Your task to perform on an android device: Search for Italian restaurants on Maps Image 0: 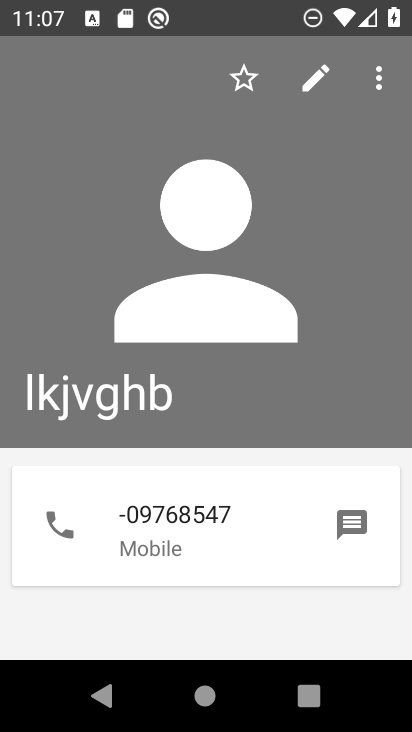
Step 0: press home button
Your task to perform on an android device: Search for Italian restaurants on Maps Image 1: 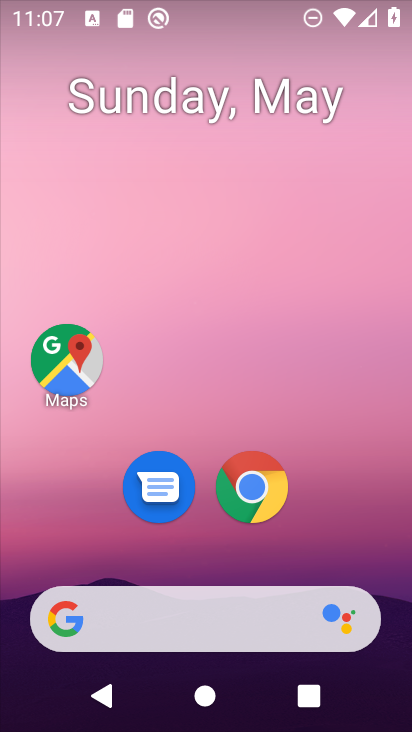
Step 1: drag from (236, 693) to (348, 151)
Your task to perform on an android device: Search for Italian restaurants on Maps Image 2: 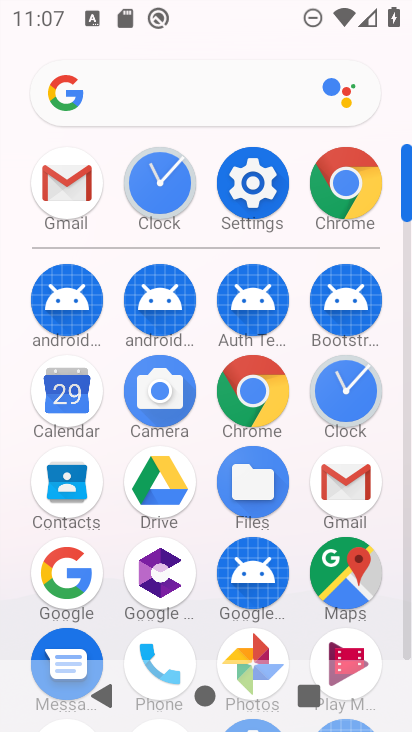
Step 2: drag from (227, 505) to (280, 216)
Your task to perform on an android device: Search for Italian restaurants on Maps Image 3: 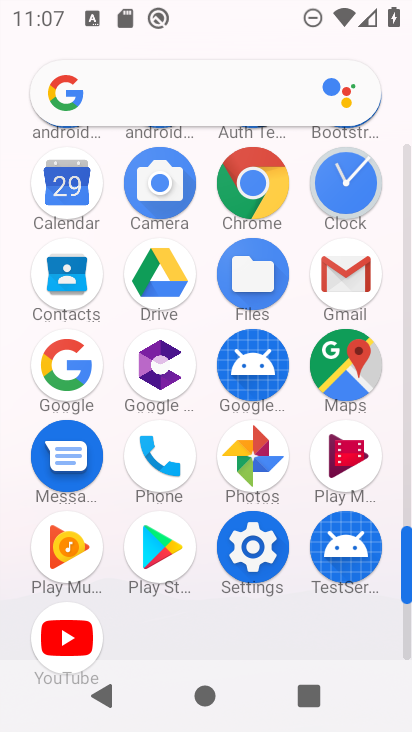
Step 3: click (349, 385)
Your task to perform on an android device: Search for Italian restaurants on Maps Image 4: 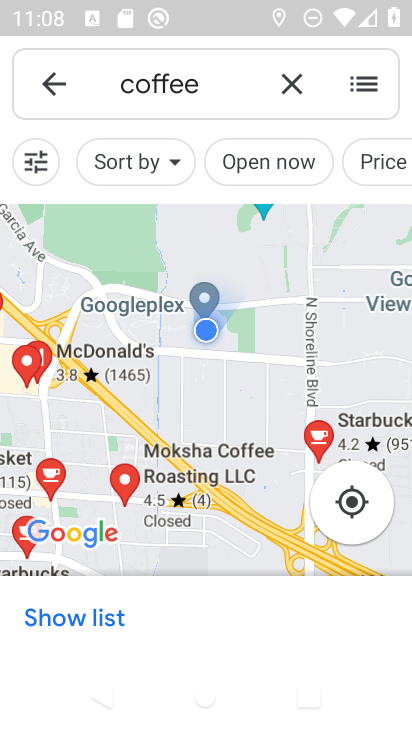
Step 4: click (50, 91)
Your task to perform on an android device: Search for Italian restaurants on Maps Image 5: 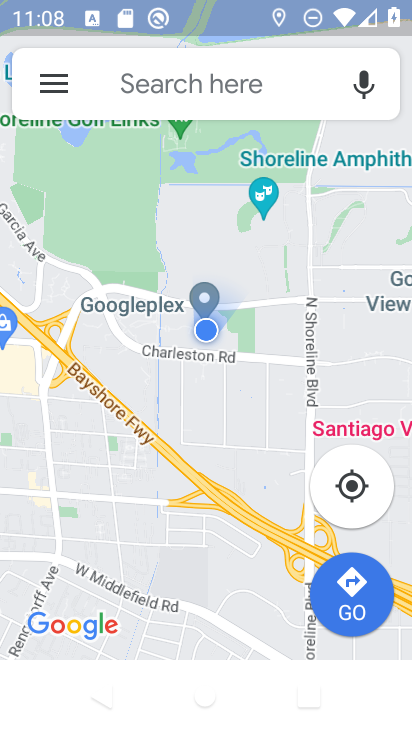
Step 5: click (164, 82)
Your task to perform on an android device: Search for Italian restaurants on Maps Image 6: 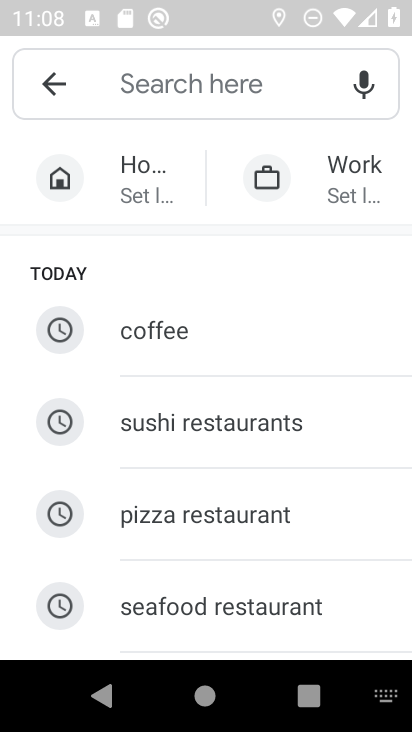
Step 6: drag from (192, 511) to (270, 271)
Your task to perform on an android device: Search for Italian restaurants on Maps Image 7: 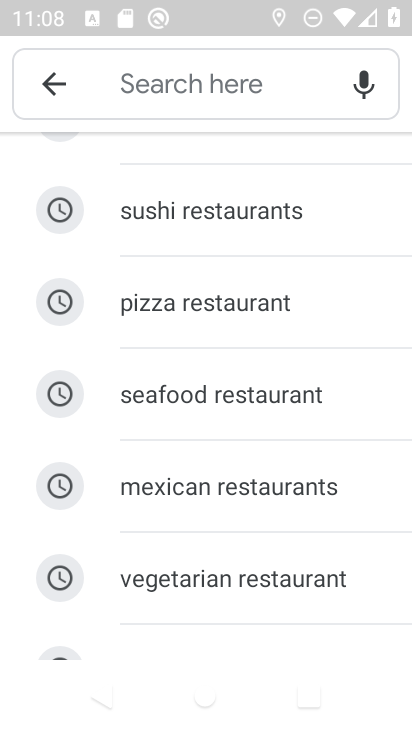
Step 7: drag from (187, 465) to (228, 191)
Your task to perform on an android device: Search for Italian restaurants on Maps Image 8: 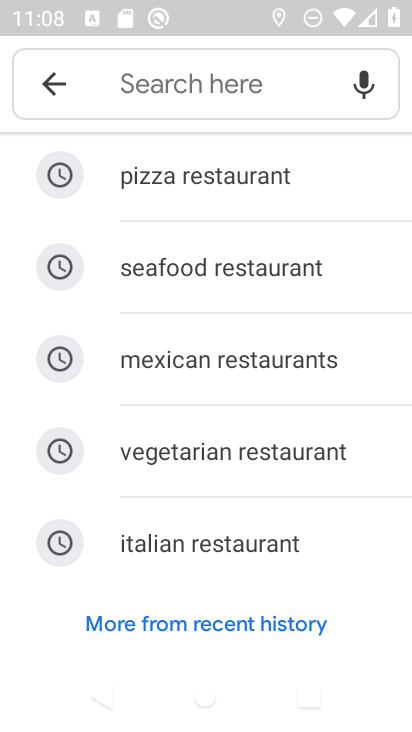
Step 8: click (224, 551)
Your task to perform on an android device: Search for Italian restaurants on Maps Image 9: 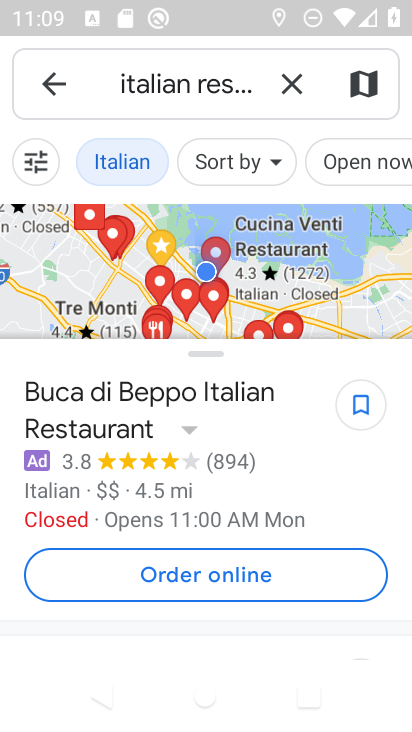
Step 9: task complete